Your task to perform on an android device: Find coffee shops on Maps Image 0: 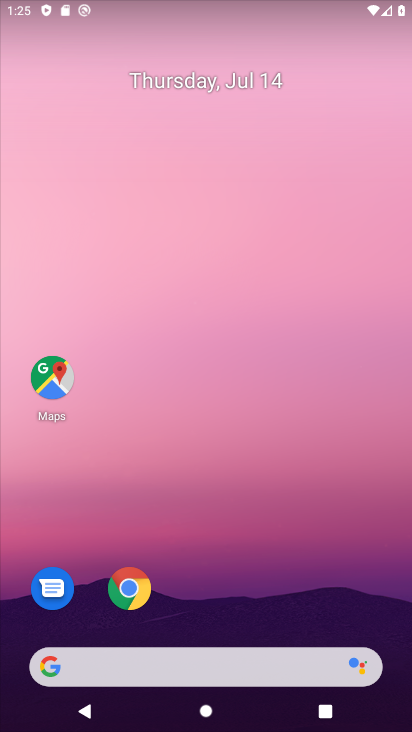
Step 0: click (51, 391)
Your task to perform on an android device: Find coffee shops on Maps Image 1: 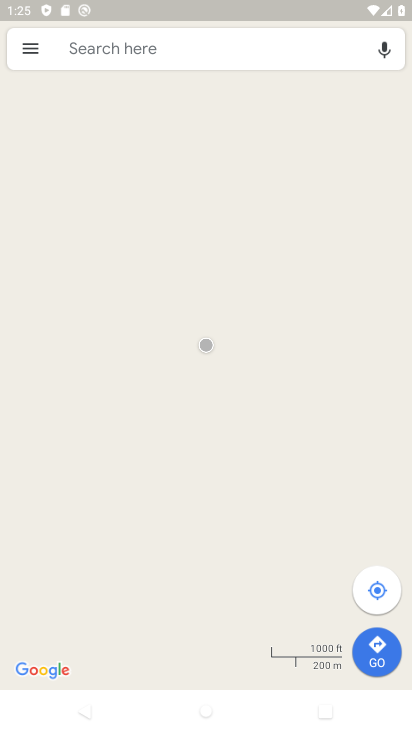
Step 1: click (204, 36)
Your task to perform on an android device: Find coffee shops on Maps Image 2: 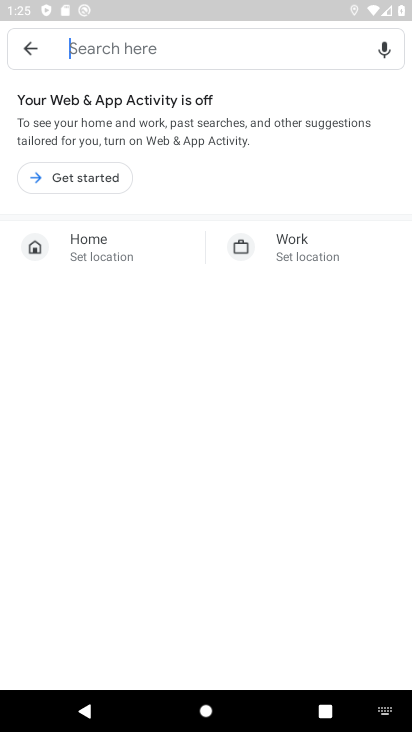
Step 2: type "coffee shops"
Your task to perform on an android device: Find coffee shops on Maps Image 3: 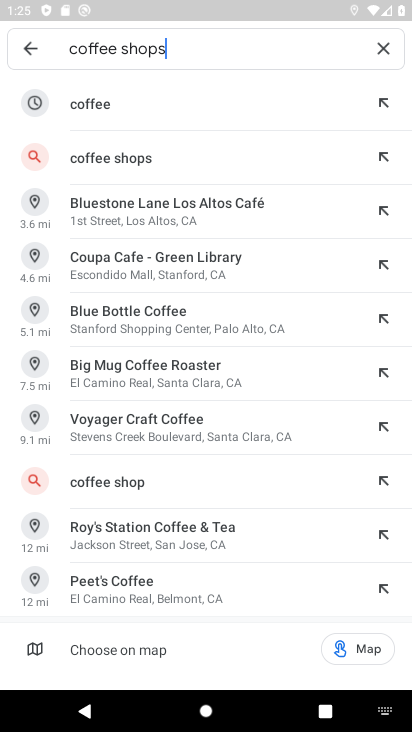
Step 3: click (135, 164)
Your task to perform on an android device: Find coffee shops on Maps Image 4: 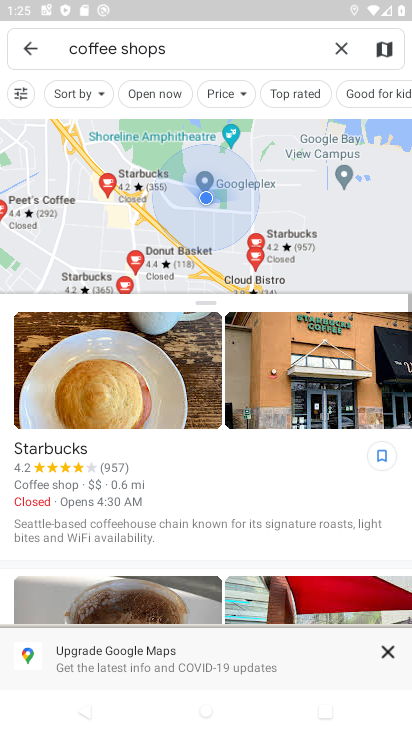
Step 4: task complete